Your task to perform on an android device: turn off location Image 0: 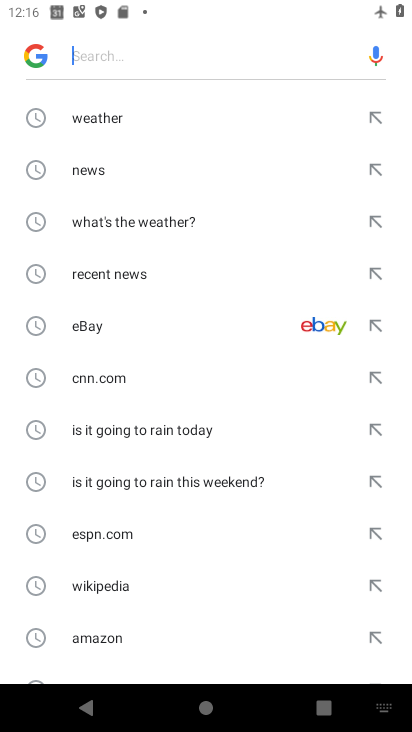
Step 0: press home button
Your task to perform on an android device: turn off location Image 1: 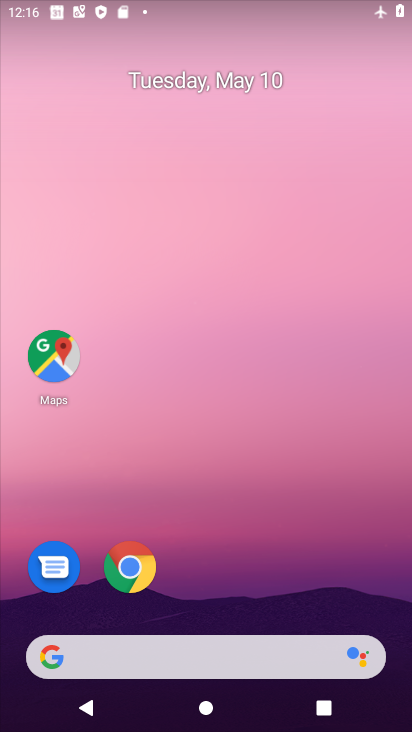
Step 1: drag from (405, 630) to (319, 84)
Your task to perform on an android device: turn off location Image 2: 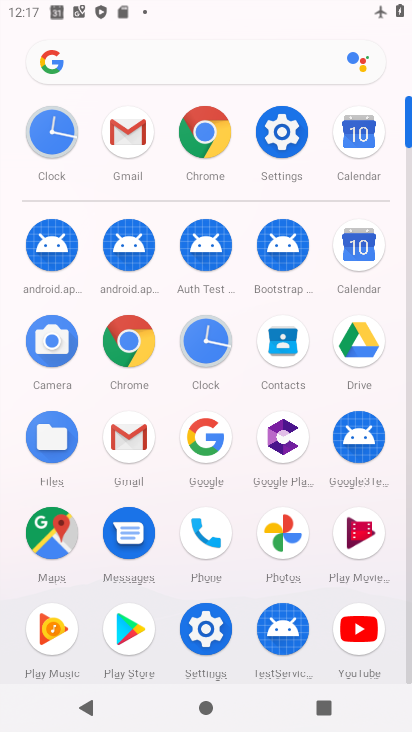
Step 2: click (206, 633)
Your task to perform on an android device: turn off location Image 3: 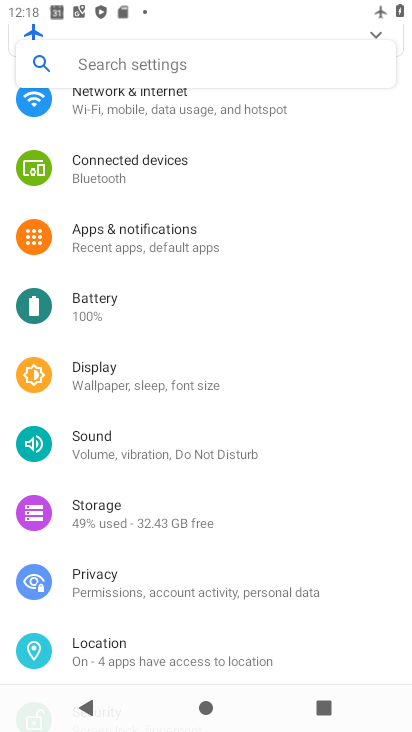
Step 3: click (181, 656)
Your task to perform on an android device: turn off location Image 4: 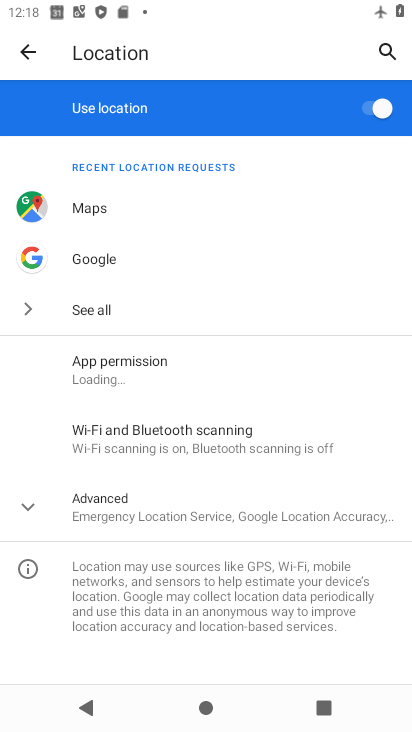
Step 4: click (356, 118)
Your task to perform on an android device: turn off location Image 5: 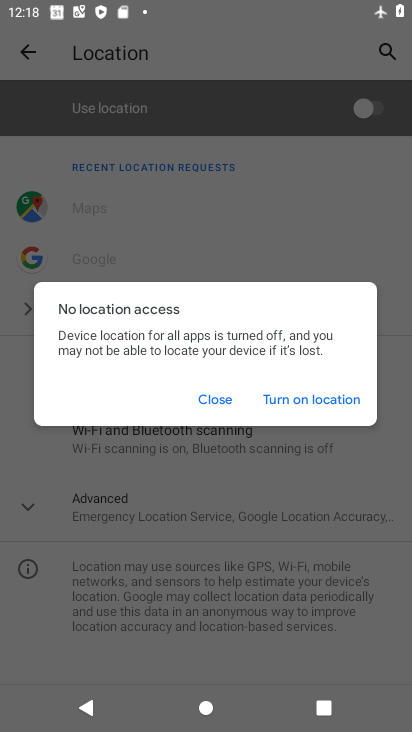
Step 5: task complete